Your task to perform on an android device: Go to network settings Image 0: 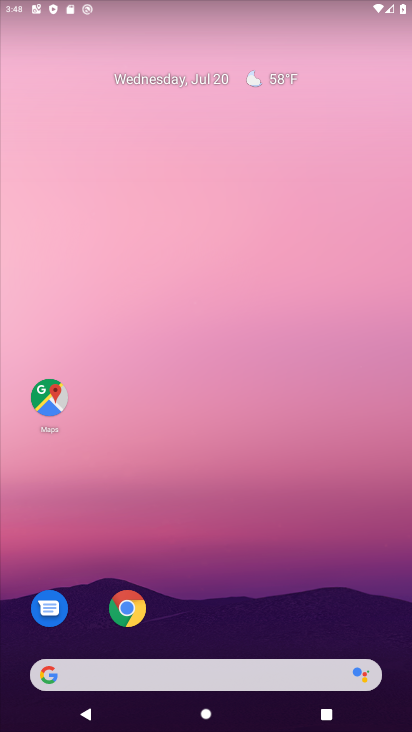
Step 0: drag from (256, 614) to (322, 0)
Your task to perform on an android device: Go to network settings Image 1: 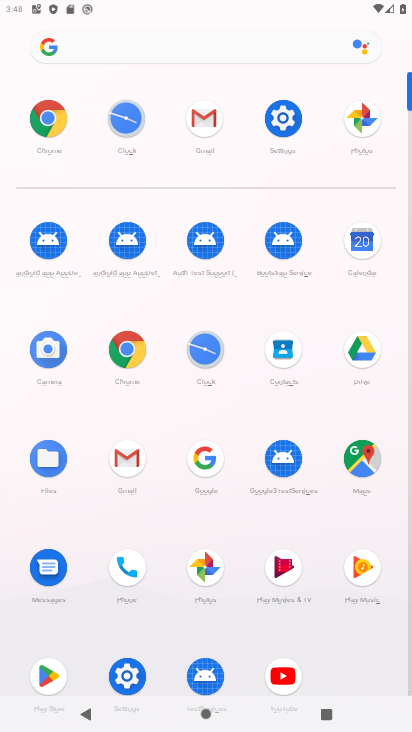
Step 1: click (277, 109)
Your task to perform on an android device: Go to network settings Image 2: 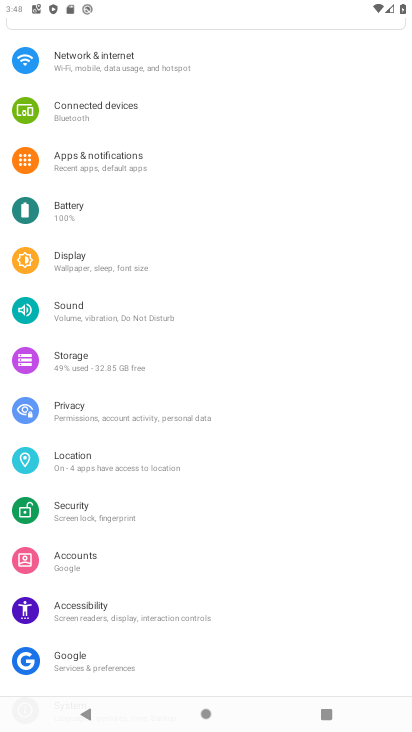
Step 2: click (114, 48)
Your task to perform on an android device: Go to network settings Image 3: 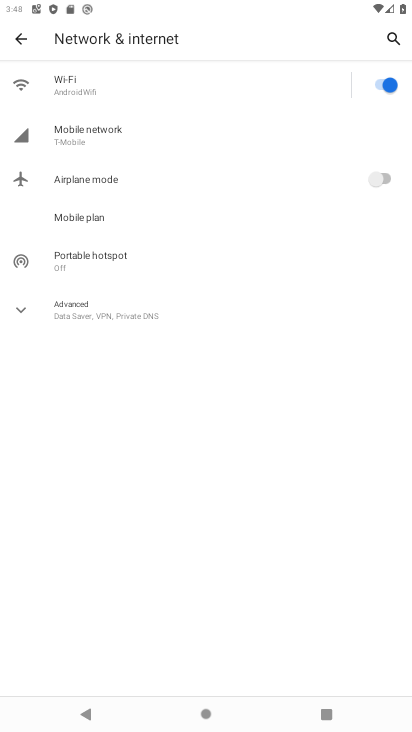
Step 3: task complete